Your task to perform on an android device: change notification settings in the gmail app Image 0: 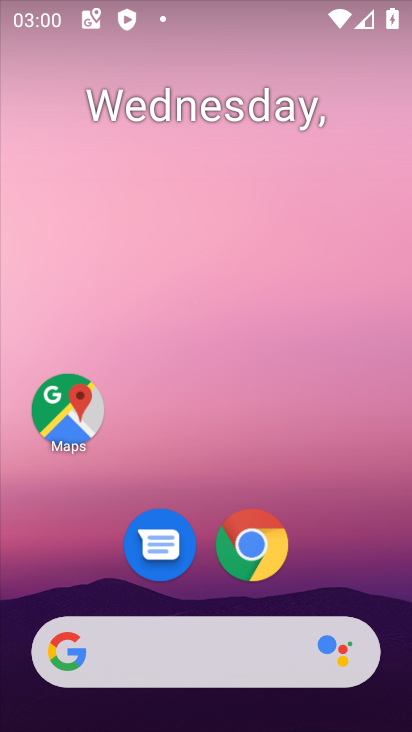
Step 0: drag from (167, 619) to (293, 146)
Your task to perform on an android device: change notification settings in the gmail app Image 1: 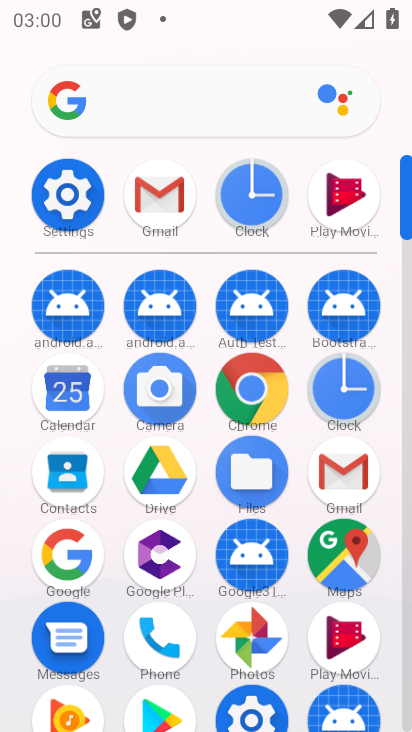
Step 1: click (176, 205)
Your task to perform on an android device: change notification settings in the gmail app Image 2: 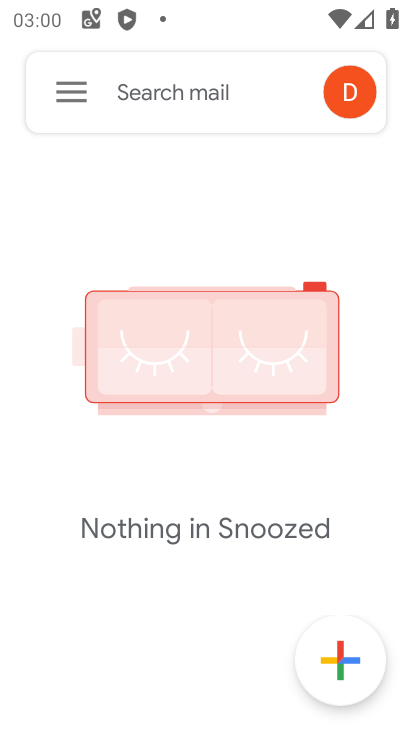
Step 2: click (71, 90)
Your task to perform on an android device: change notification settings in the gmail app Image 3: 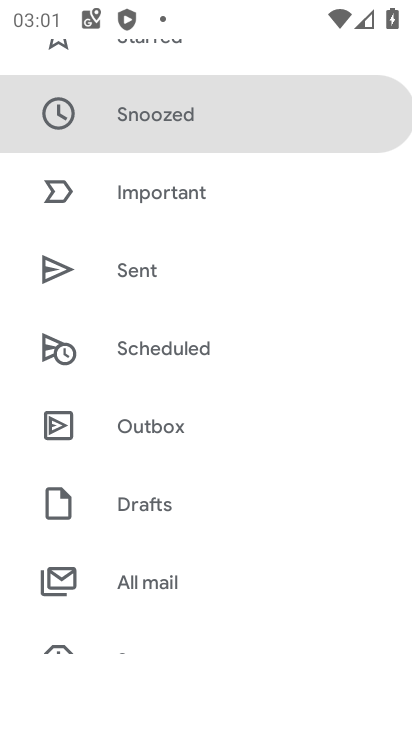
Step 3: drag from (201, 591) to (254, 141)
Your task to perform on an android device: change notification settings in the gmail app Image 4: 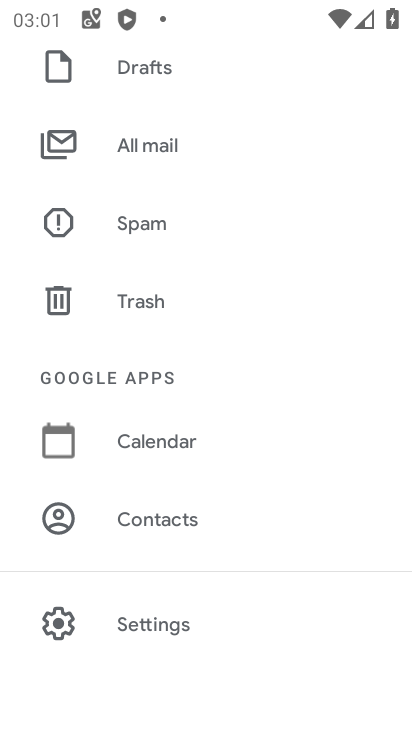
Step 4: click (148, 625)
Your task to perform on an android device: change notification settings in the gmail app Image 5: 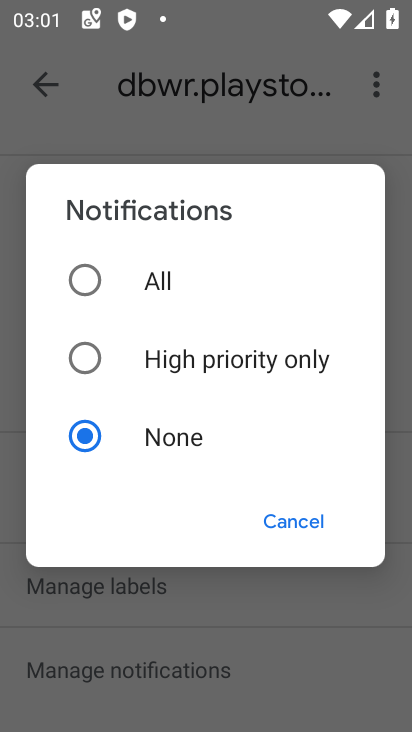
Step 5: click (83, 286)
Your task to perform on an android device: change notification settings in the gmail app Image 6: 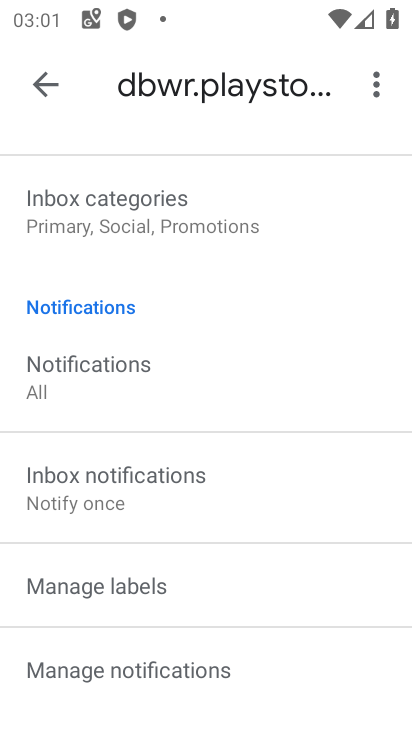
Step 6: task complete